Your task to perform on an android device: all mails in gmail Image 0: 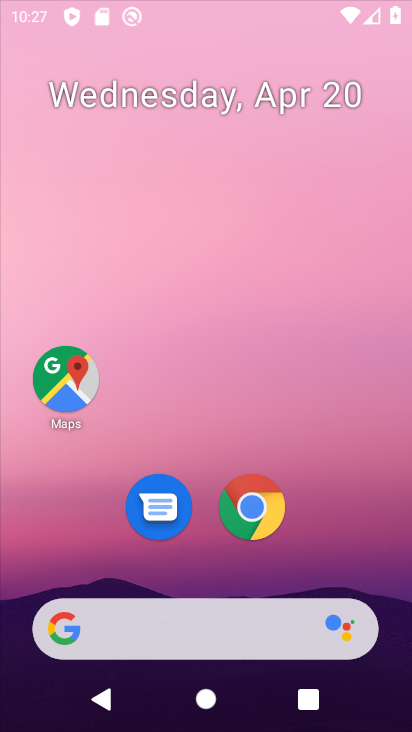
Step 0: drag from (291, 565) to (287, 131)
Your task to perform on an android device: all mails in gmail Image 1: 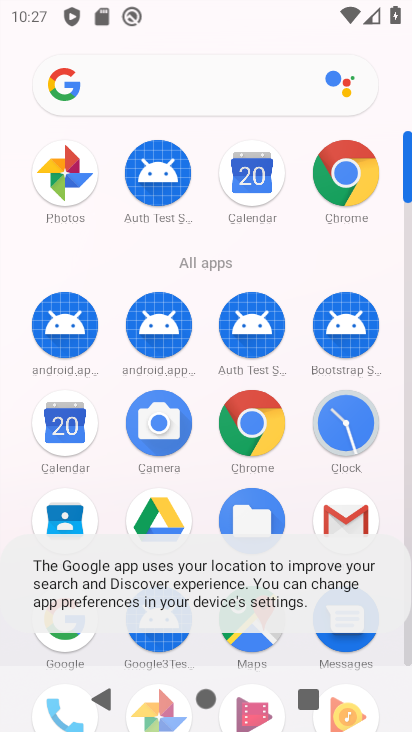
Step 1: drag from (285, 542) to (215, 125)
Your task to perform on an android device: all mails in gmail Image 2: 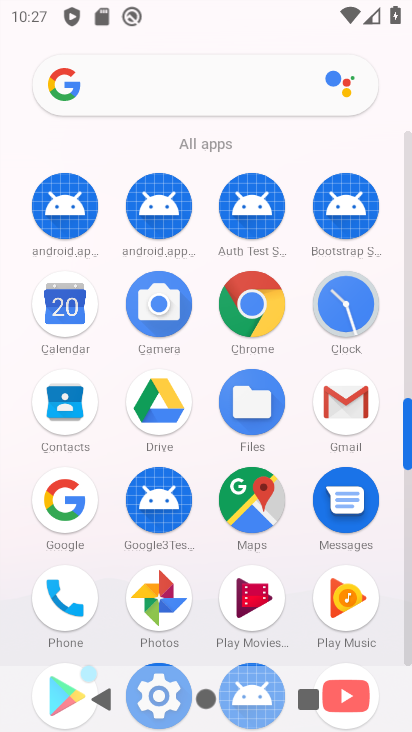
Step 2: drag from (272, 455) to (229, 251)
Your task to perform on an android device: all mails in gmail Image 3: 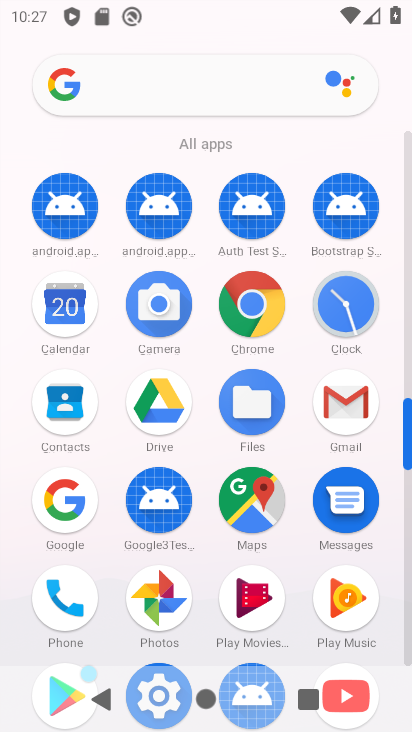
Step 3: drag from (292, 647) to (288, 247)
Your task to perform on an android device: all mails in gmail Image 4: 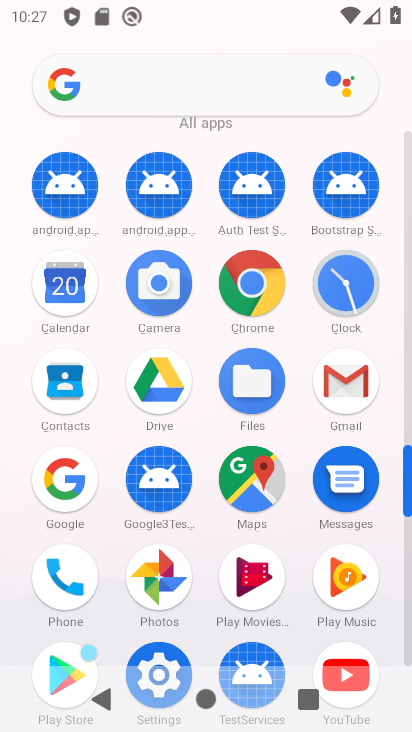
Step 4: click (161, 654)
Your task to perform on an android device: all mails in gmail Image 5: 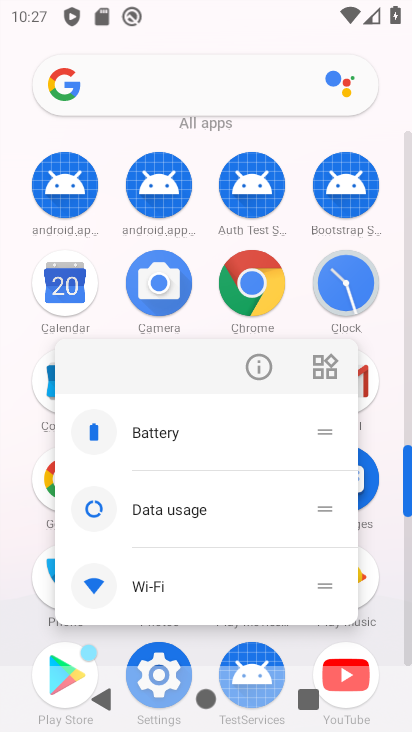
Step 5: click (161, 654)
Your task to perform on an android device: all mails in gmail Image 6: 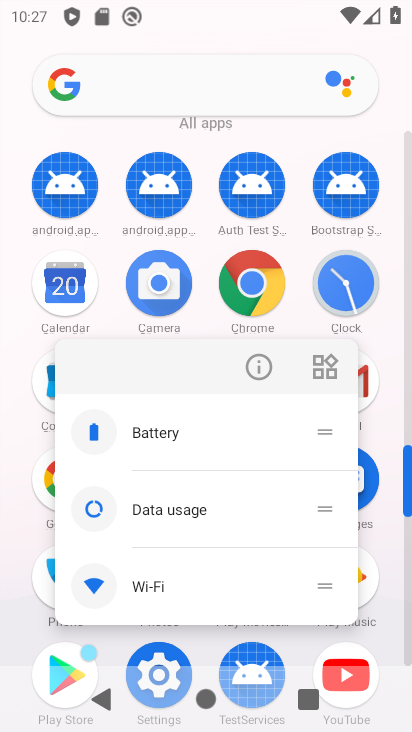
Step 6: click (153, 663)
Your task to perform on an android device: all mails in gmail Image 7: 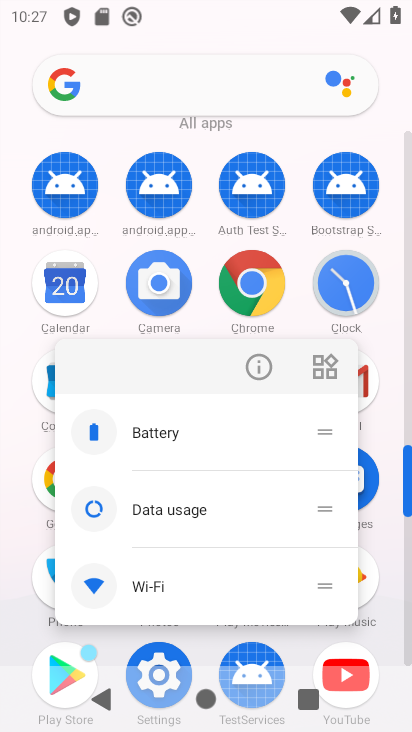
Step 7: click (157, 659)
Your task to perform on an android device: all mails in gmail Image 8: 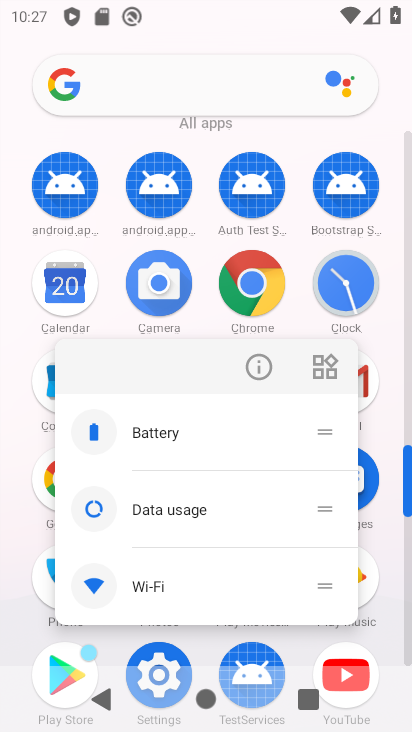
Step 8: click (159, 653)
Your task to perform on an android device: all mails in gmail Image 9: 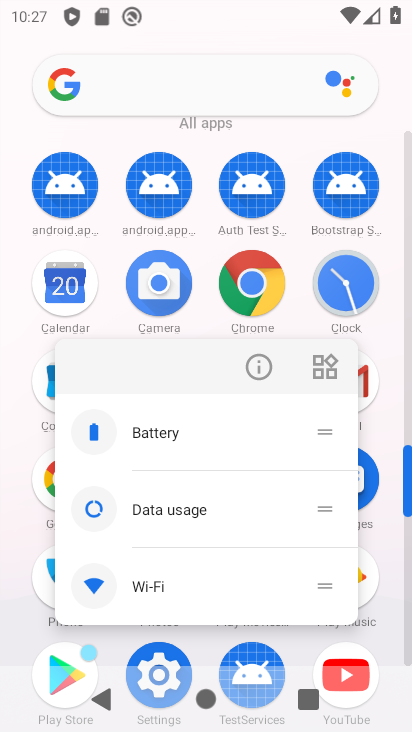
Step 9: click (152, 651)
Your task to perform on an android device: all mails in gmail Image 10: 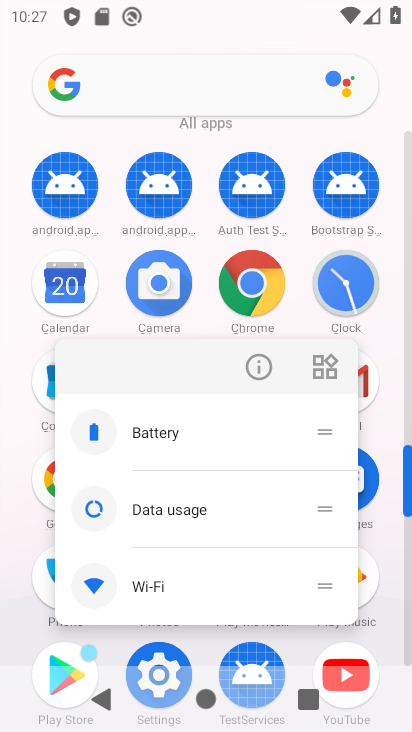
Step 10: click (161, 658)
Your task to perform on an android device: all mails in gmail Image 11: 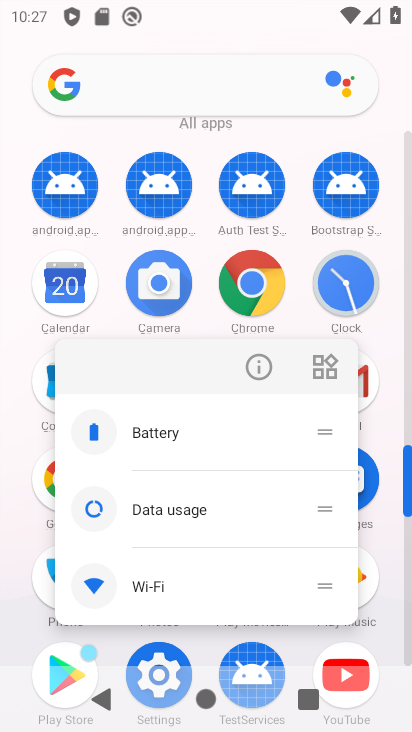
Step 11: click (166, 254)
Your task to perform on an android device: all mails in gmail Image 12: 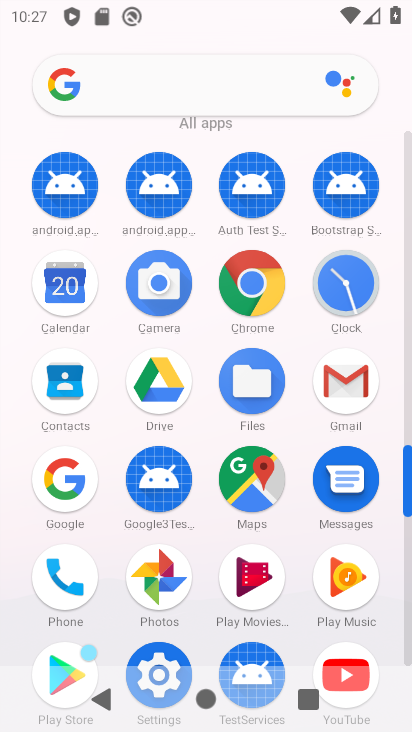
Step 12: drag from (208, 504) to (215, 51)
Your task to perform on an android device: all mails in gmail Image 13: 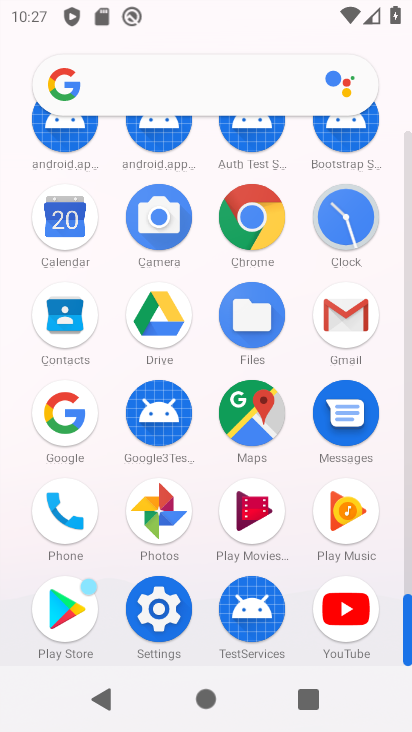
Step 13: click (161, 612)
Your task to perform on an android device: all mails in gmail Image 14: 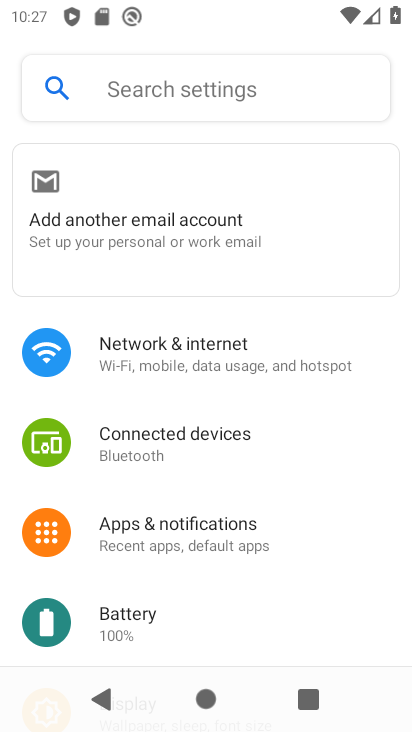
Step 14: drag from (158, 608) to (222, 84)
Your task to perform on an android device: all mails in gmail Image 15: 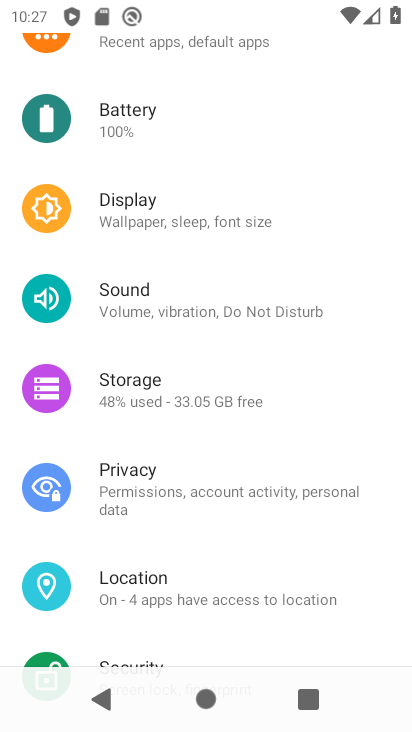
Step 15: click (117, 319)
Your task to perform on an android device: all mails in gmail Image 16: 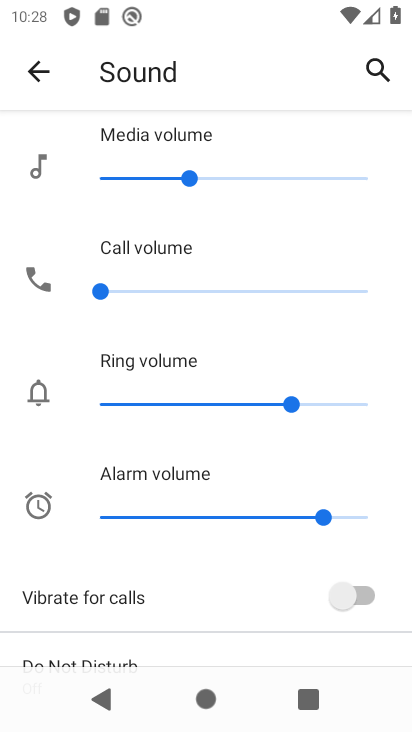
Step 16: task complete